Your task to perform on an android device: Open maps Image 0: 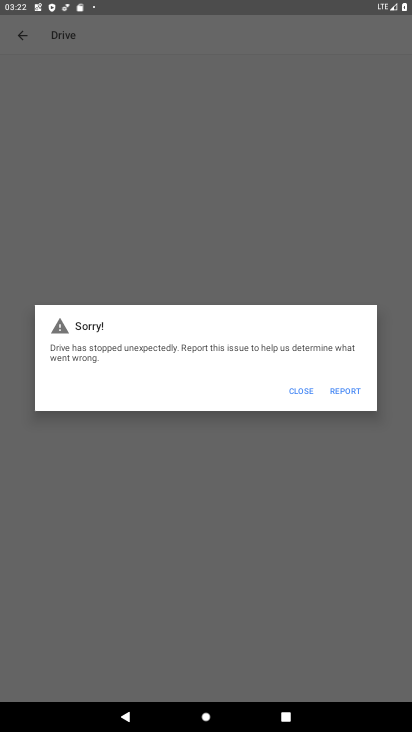
Step 0: press home button
Your task to perform on an android device: Open maps Image 1: 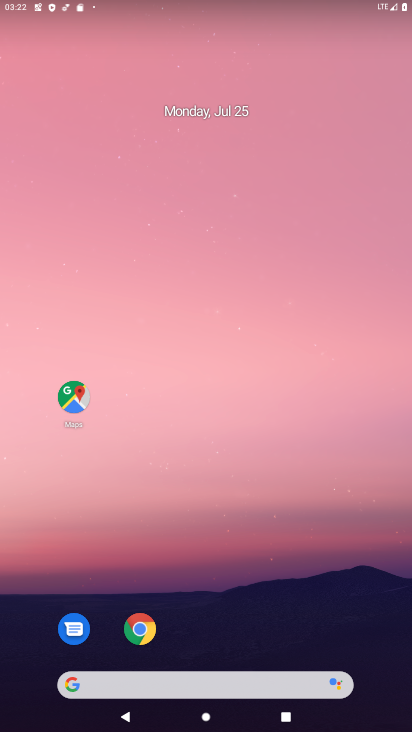
Step 1: click (84, 401)
Your task to perform on an android device: Open maps Image 2: 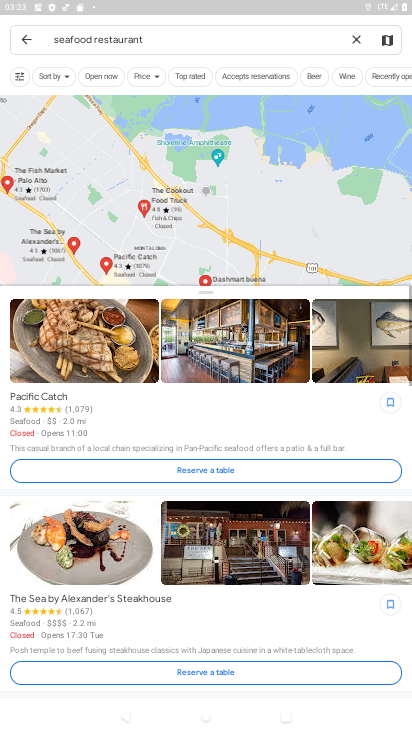
Step 2: task complete